Your task to perform on an android device: add a label to a message in the gmail app Image 0: 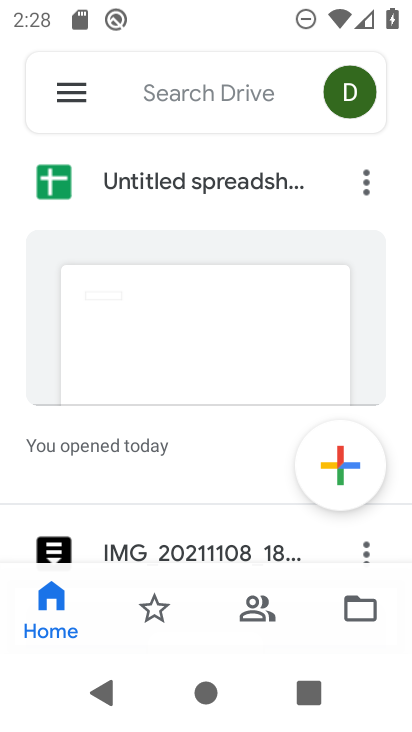
Step 0: press home button
Your task to perform on an android device: add a label to a message in the gmail app Image 1: 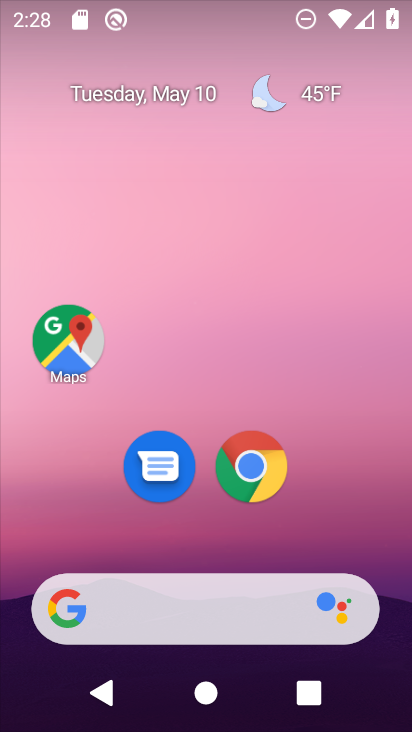
Step 1: drag from (309, 549) to (237, 5)
Your task to perform on an android device: add a label to a message in the gmail app Image 2: 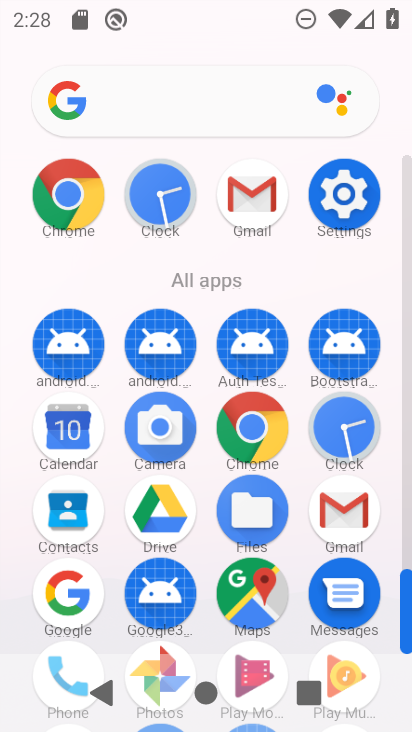
Step 2: click (242, 186)
Your task to perform on an android device: add a label to a message in the gmail app Image 3: 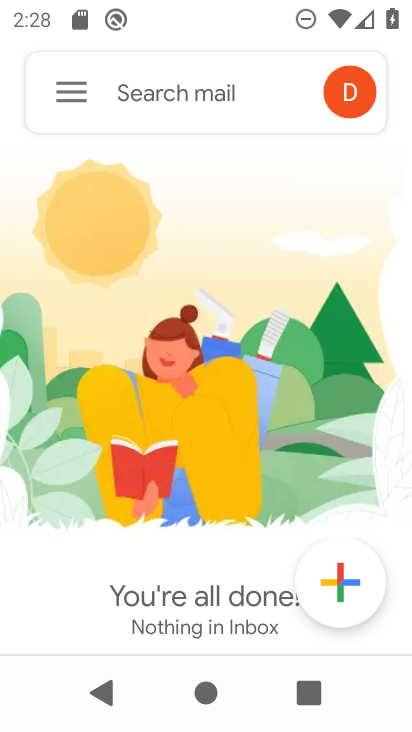
Step 3: click (63, 85)
Your task to perform on an android device: add a label to a message in the gmail app Image 4: 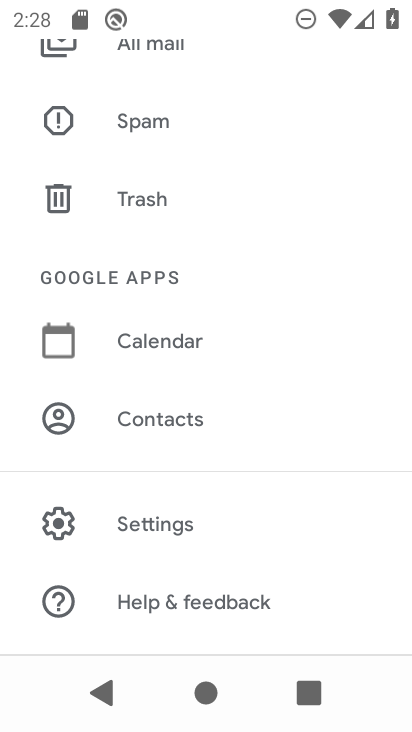
Step 4: click (170, 51)
Your task to perform on an android device: add a label to a message in the gmail app Image 5: 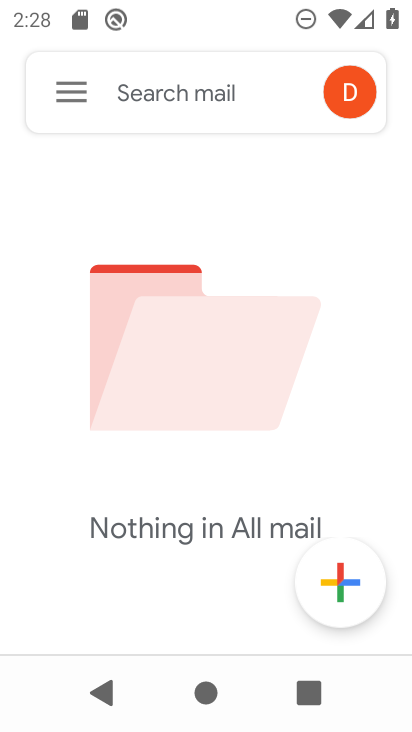
Step 5: task complete